Your task to perform on an android device: turn notification dots on Image 0: 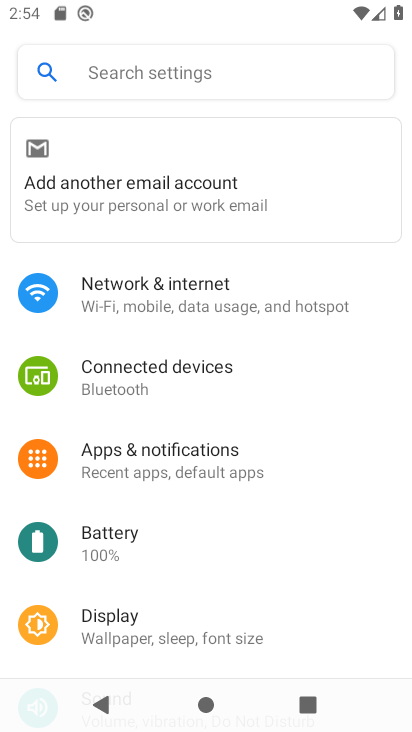
Step 0: drag from (310, 561) to (330, 445)
Your task to perform on an android device: turn notification dots on Image 1: 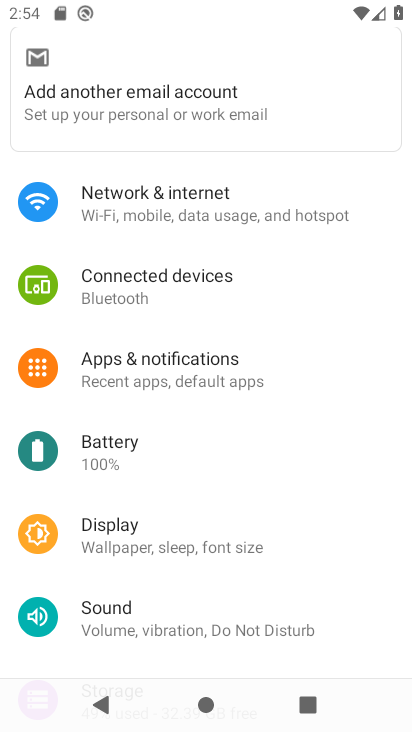
Step 1: drag from (340, 611) to (340, 454)
Your task to perform on an android device: turn notification dots on Image 2: 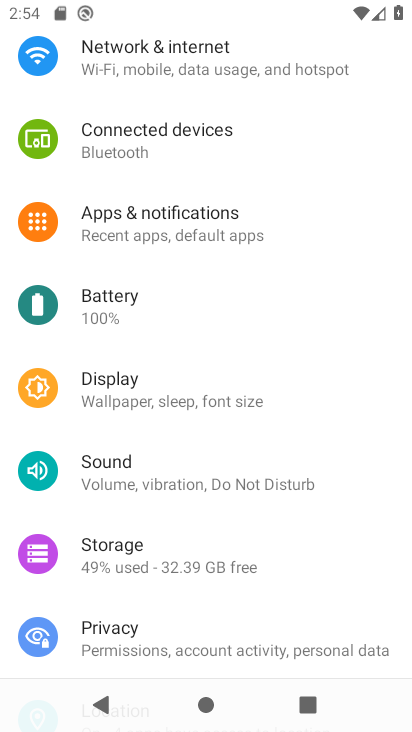
Step 2: drag from (363, 606) to (411, 432)
Your task to perform on an android device: turn notification dots on Image 3: 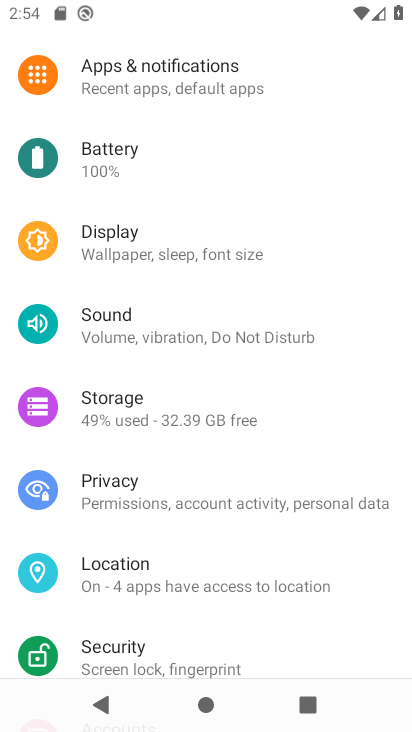
Step 3: drag from (299, 576) to (336, 411)
Your task to perform on an android device: turn notification dots on Image 4: 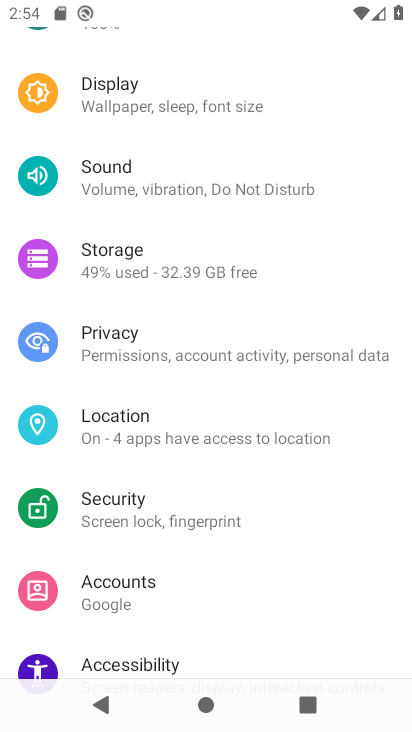
Step 4: drag from (345, 242) to (341, 415)
Your task to perform on an android device: turn notification dots on Image 5: 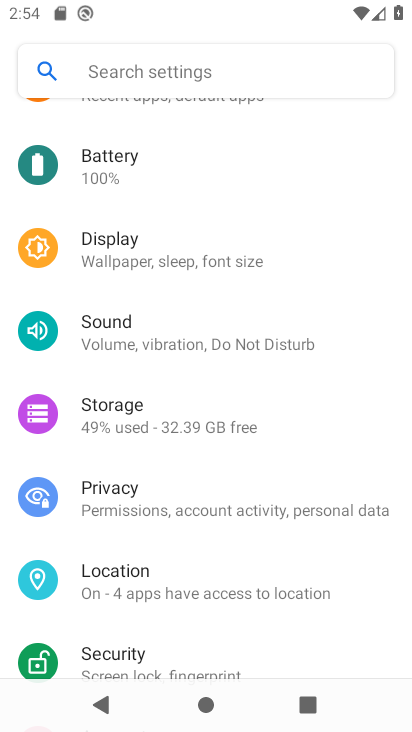
Step 5: drag from (324, 220) to (333, 395)
Your task to perform on an android device: turn notification dots on Image 6: 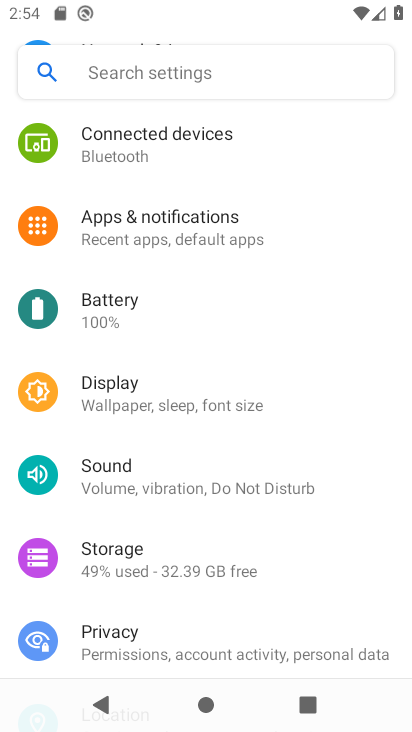
Step 6: drag from (330, 238) to (334, 394)
Your task to perform on an android device: turn notification dots on Image 7: 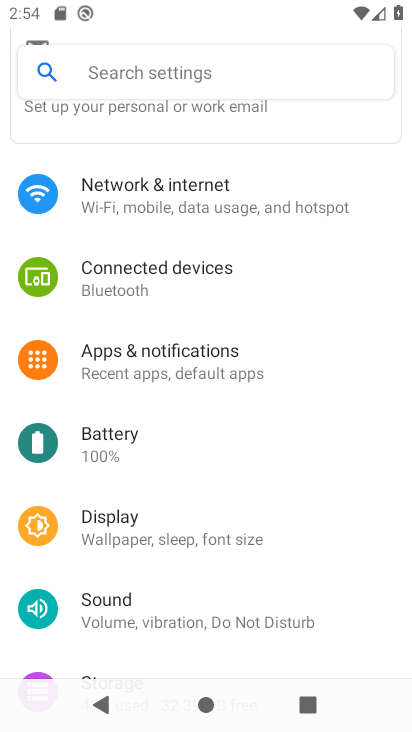
Step 7: drag from (322, 289) to (344, 402)
Your task to perform on an android device: turn notification dots on Image 8: 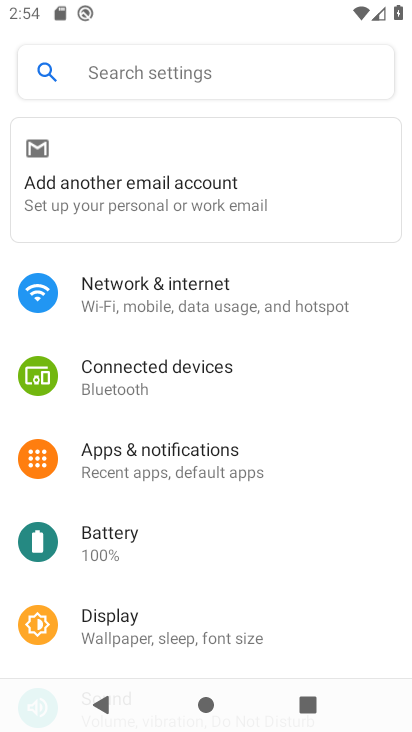
Step 8: drag from (325, 523) to (325, 403)
Your task to perform on an android device: turn notification dots on Image 9: 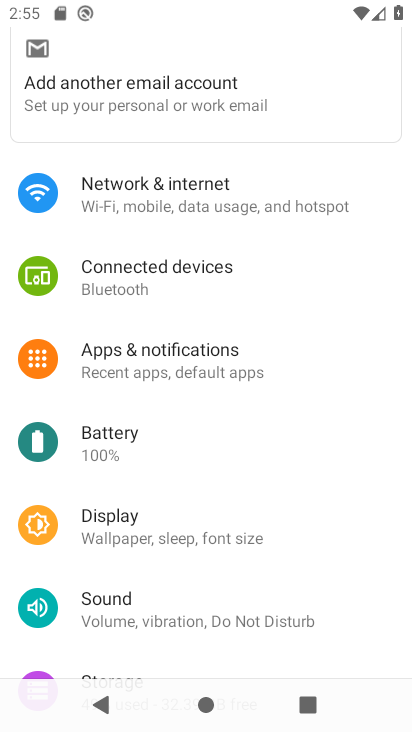
Step 9: drag from (299, 488) to (311, 389)
Your task to perform on an android device: turn notification dots on Image 10: 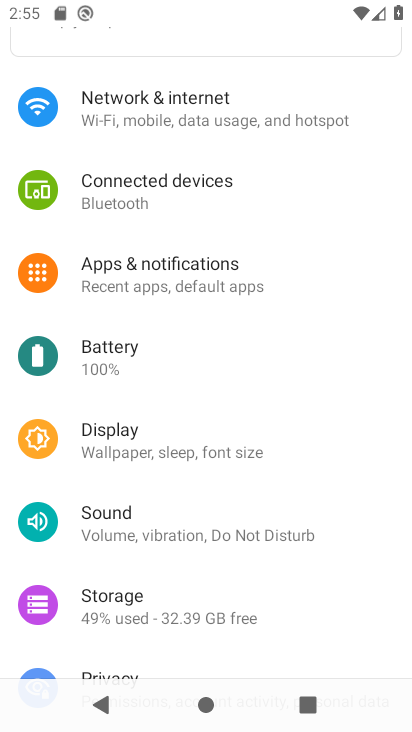
Step 10: click (189, 278)
Your task to perform on an android device: turn notification dots on Image 11: 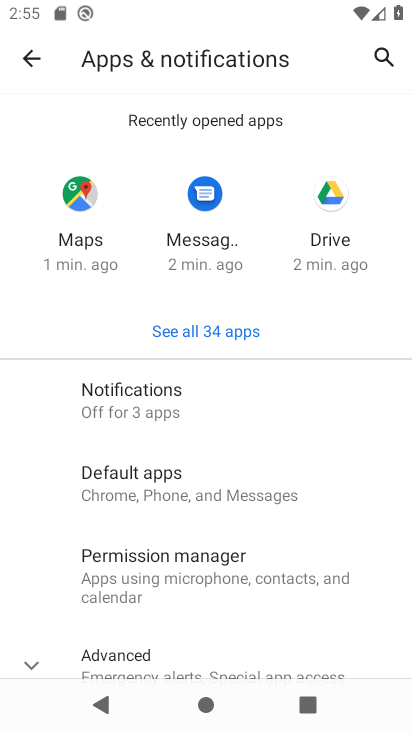
Step 11: drag from (293, 508) to (292, 378)
Your task to perform on an android device: turn notification dots on Image 12: 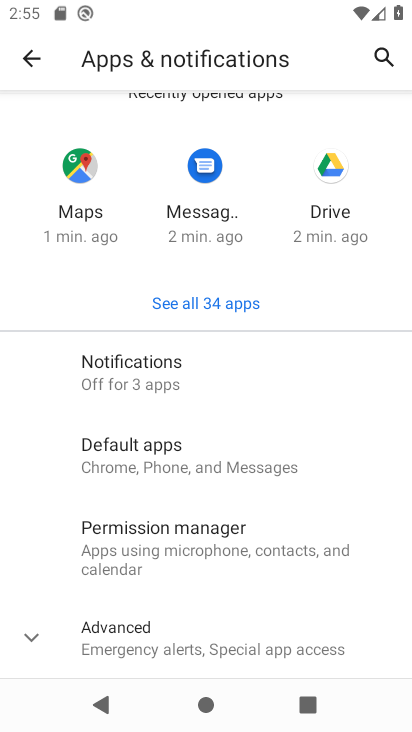
Step 12: click (151, 384)
Your task to perform on an android device: turn notification dots on Image 13: 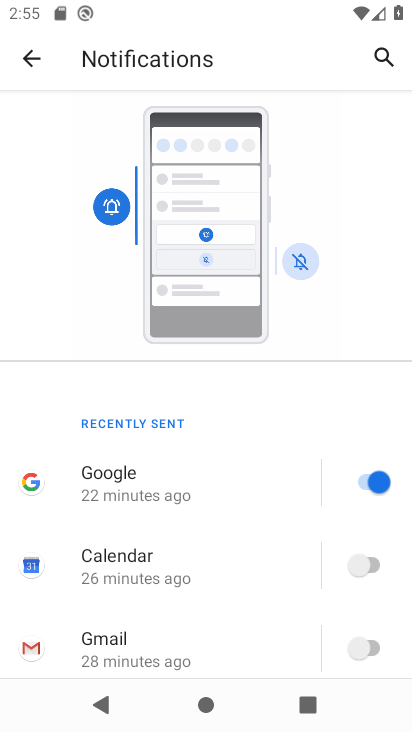
Step 13: drag from (258, 497) to (276, 287)
Your task to perform on an android device: turn notification dots on Image 14: 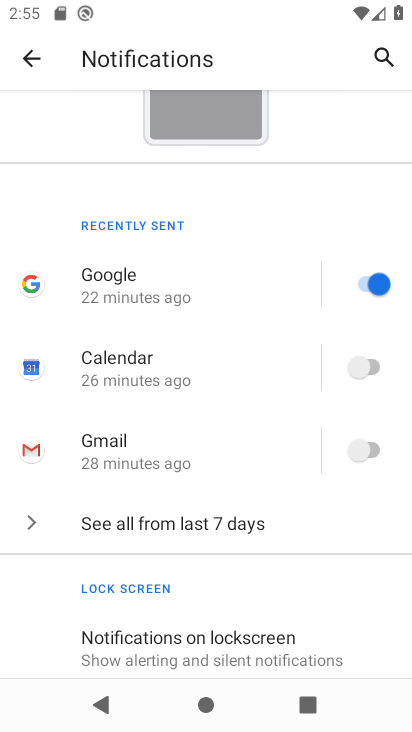
Step 14: drag from (266, 524) to (284, 335)
Your task to perform on an android device: turn notification dots on Image 15: 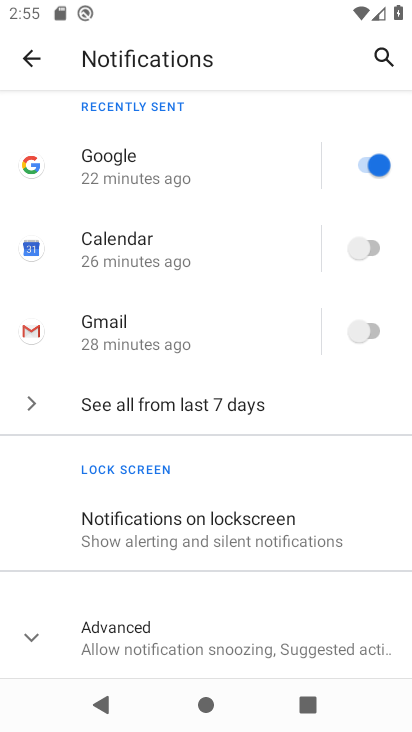
Step 15: click (199, 642)
Your task to perform on an android device: turn notification dots on Image 16: 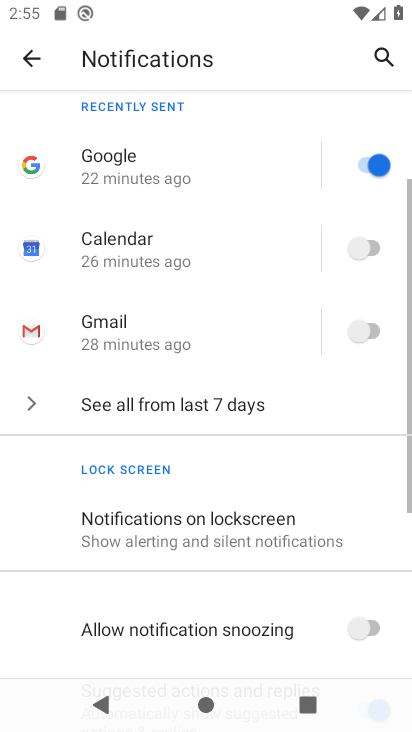
Step 16: task complete